Your task to perform on an android device: Go to location settings Image 0: 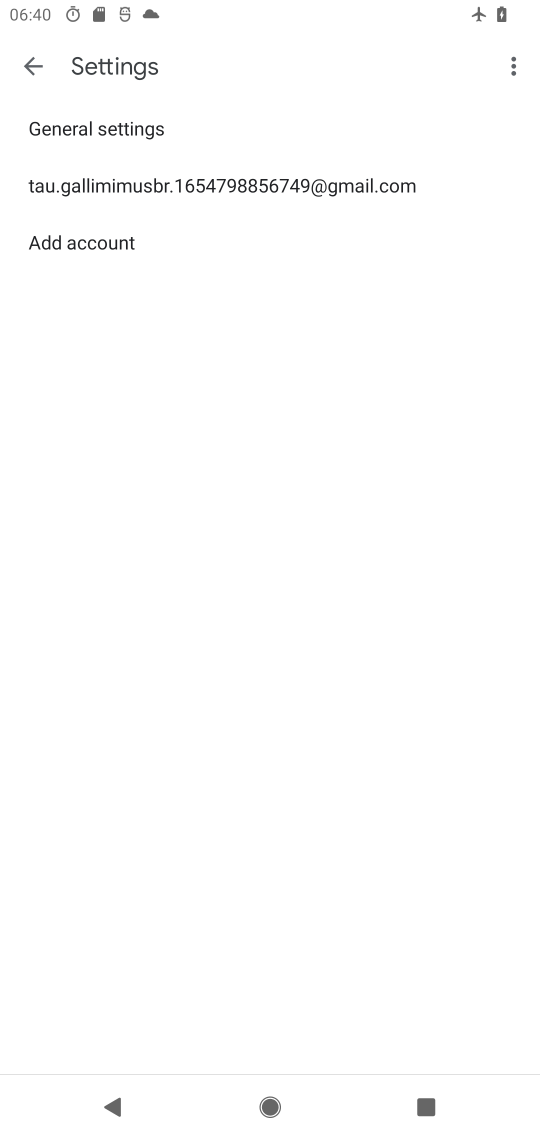
Step 0: press home button
Your task to perform on an android device: Go to location settings Image 1: 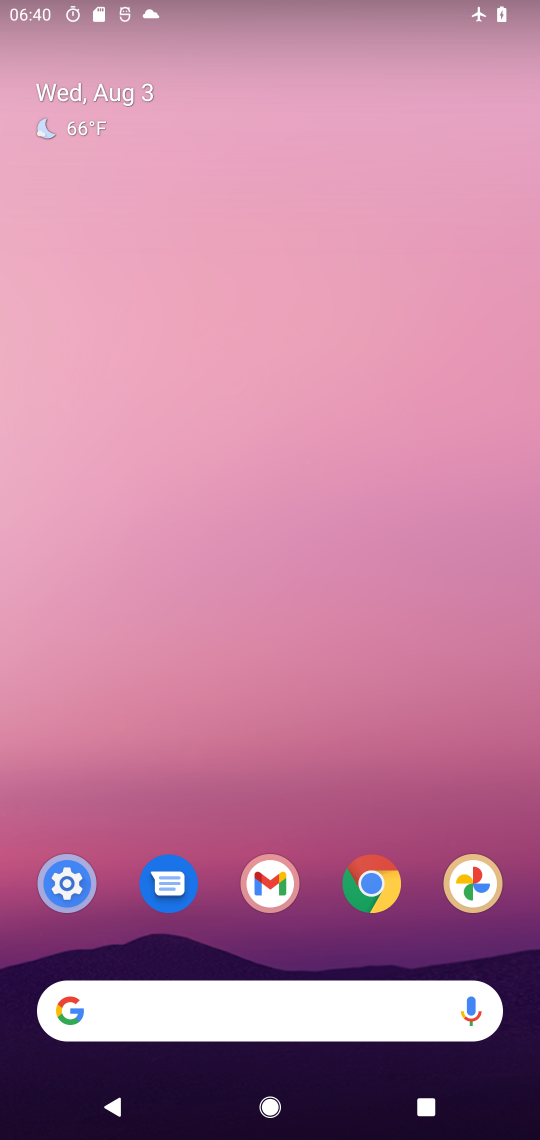
Step 1: drag from (194, 967) to (286, 142)
Your task to perform on an android device: Go to location settings Image 2: 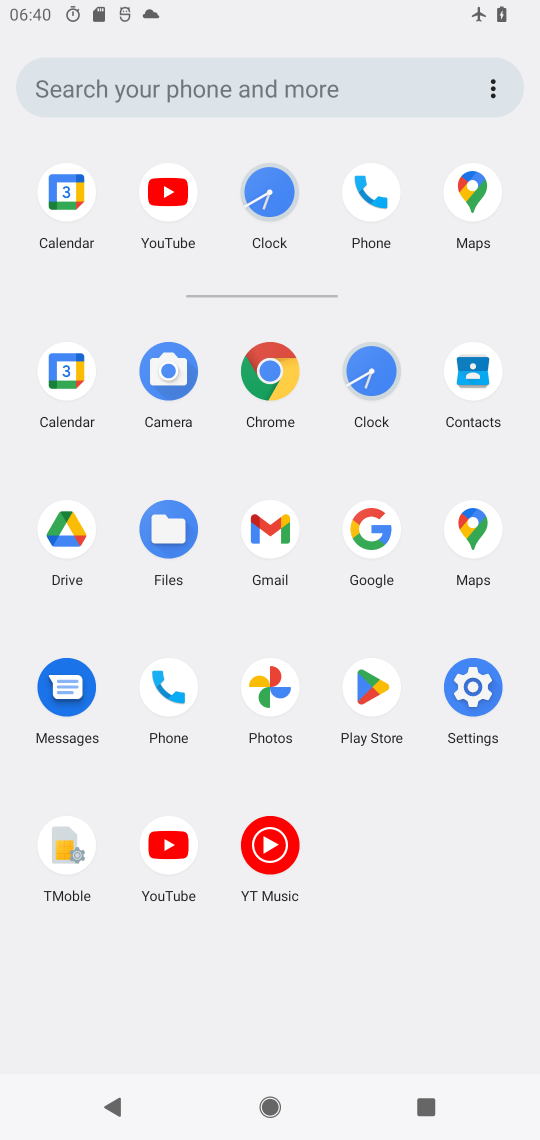
Step 2: click (472, 695)
Your task to perform on an android device: Go to location settings Image 3: 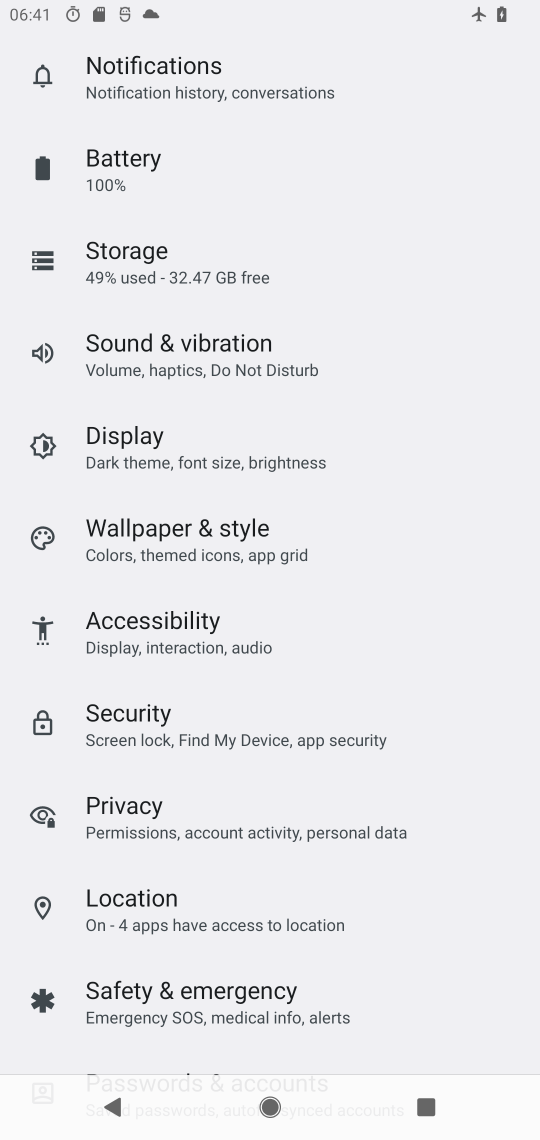
Step 3: click (116, 905)
Your task to perform on an android device: Go to location settings Image 4: 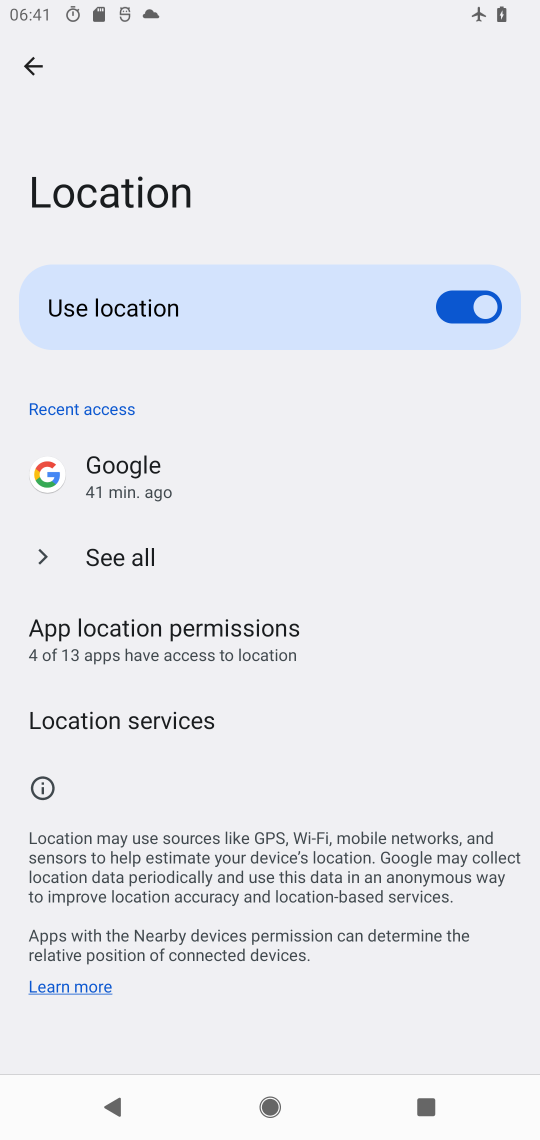
Step 4: drag from (160, 964) to (218, 277)
Your task to perform on an android device: Go to location settings Image 5: 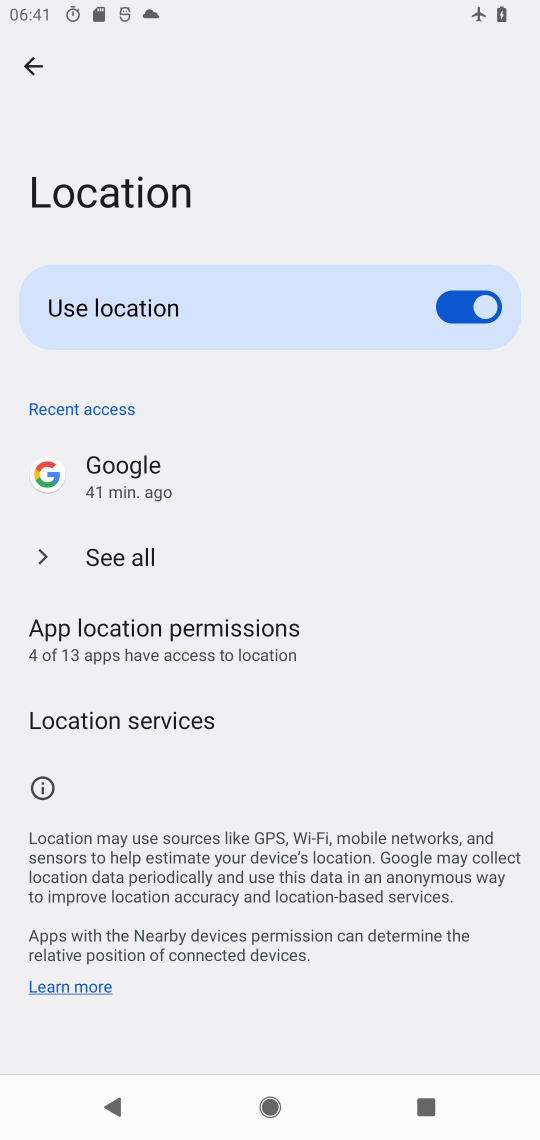
Step 5: click (168, 539)
Your task to perform on an android device: Go to location settings Image 6: 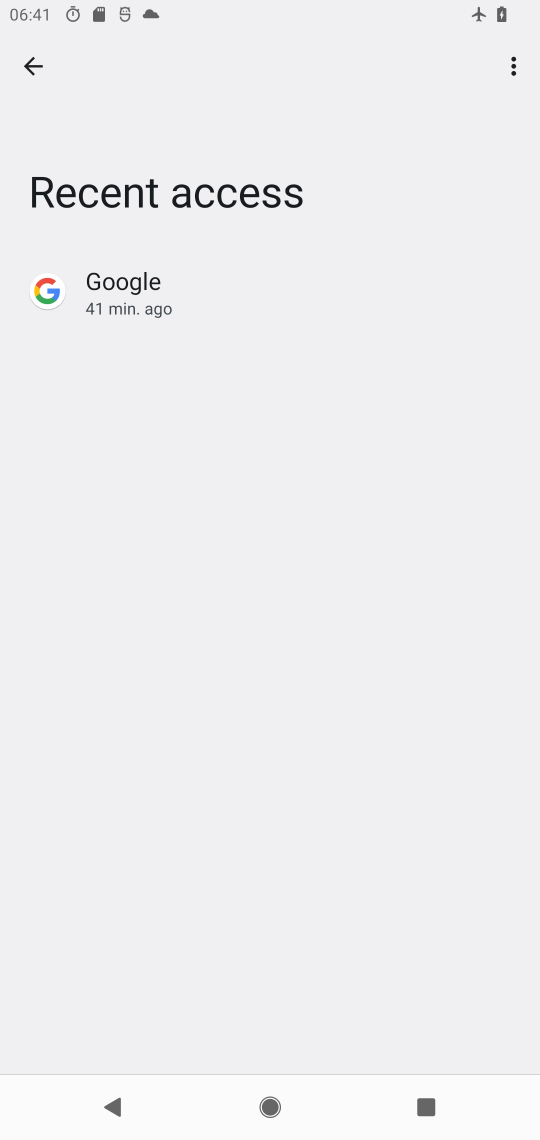
Step 6: task complete